Your task to perform on an android device: refresh tabs in the chrome app Image 0: 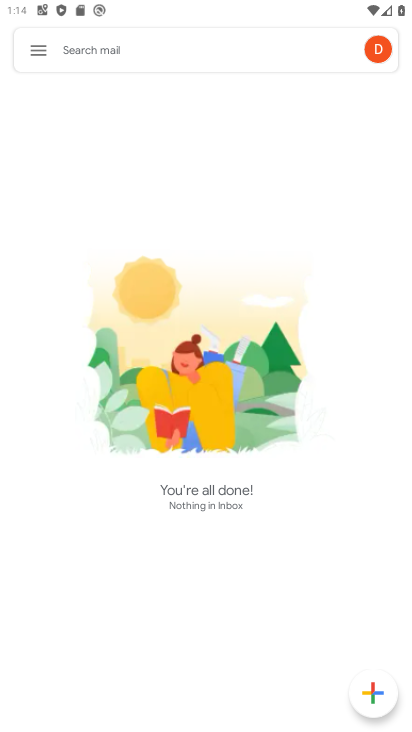
Step 0: press home button
Your task to perform on an android device: refresh tabs in the chrome app Image 1: 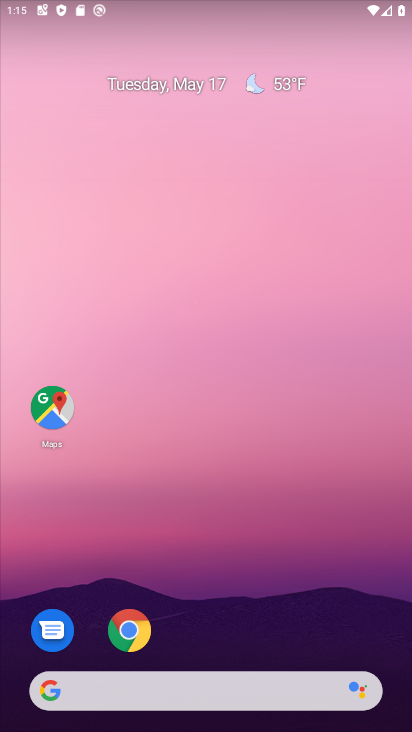
Step 1: click (136, 635)
Your task to perform on an android device: refresh tabs in the chrome app Image 2: 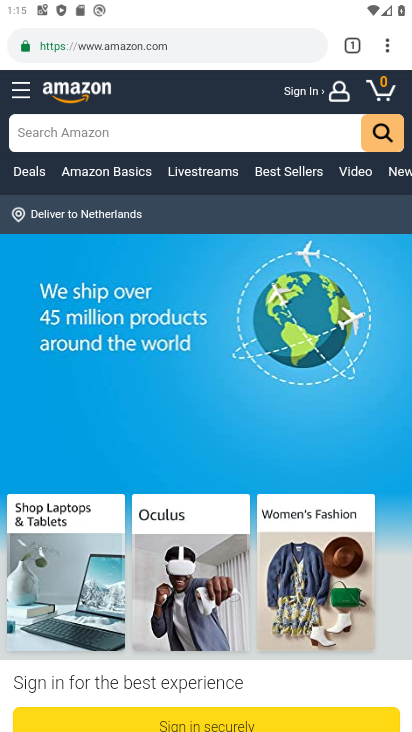
Step 2: click (389, 47)
Your task to perform on an android device: refresh tabs in the chrome app Image 3: 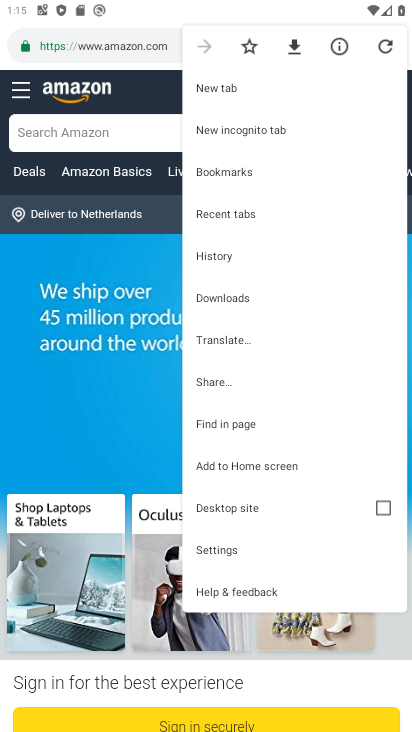
Step 3: click (391, 49)
Your task to perform on an android device: refresh tabs in the chrome app Image 4: 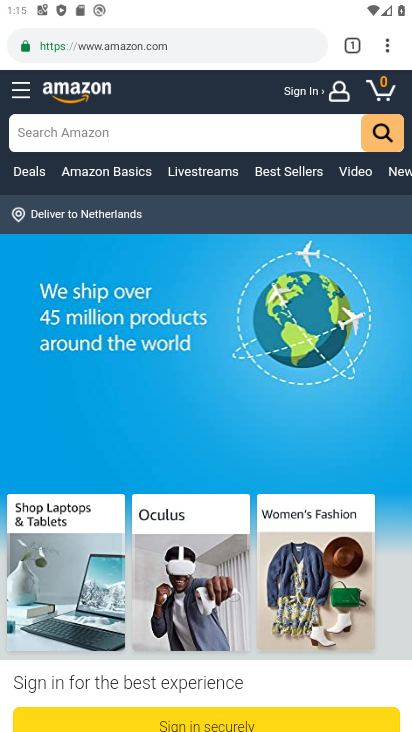
Step 4: task complete